Your task to perform on an android device: Go to Wikipedia Image 0: 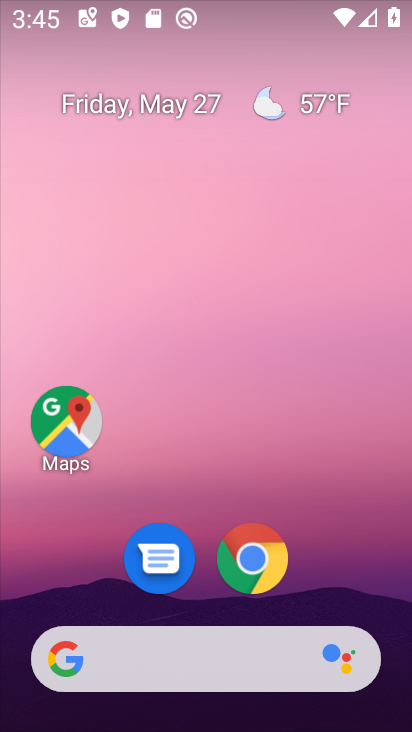
Step 0: click (212, 661)
Your task to perform on an android device: Go to Wikipedia Image 1: 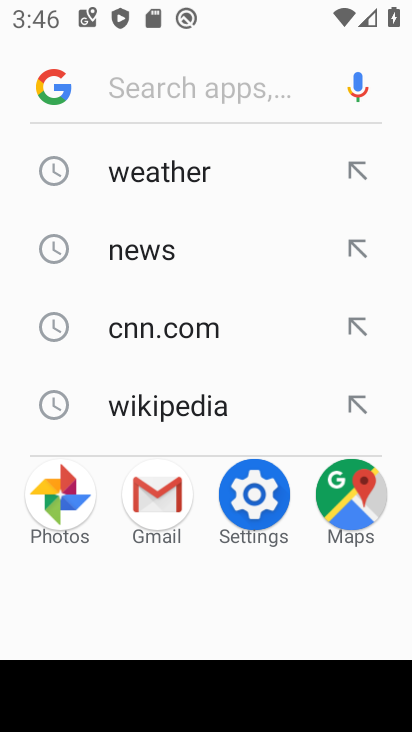
Step 1: click (182, 407)
Your task to perform on an android device: Go to Wikipedia Image 2: 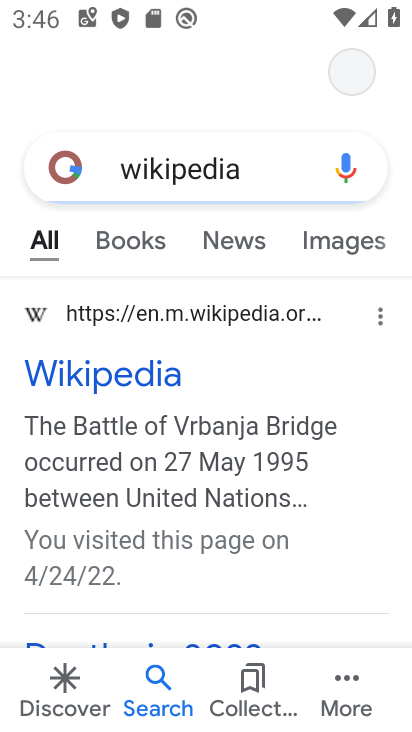
Step 2: task complete